Your task to perform on an android device: Set the phone to "Do not disturb". Image 0: 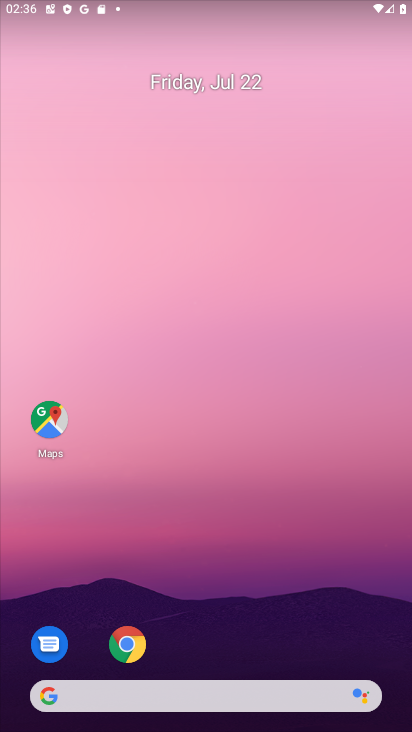
Step 0: drag from (270, 675) to (294, 15)
Your task to perform on an android device: Set the phone to "Do not disturb". Image 1: 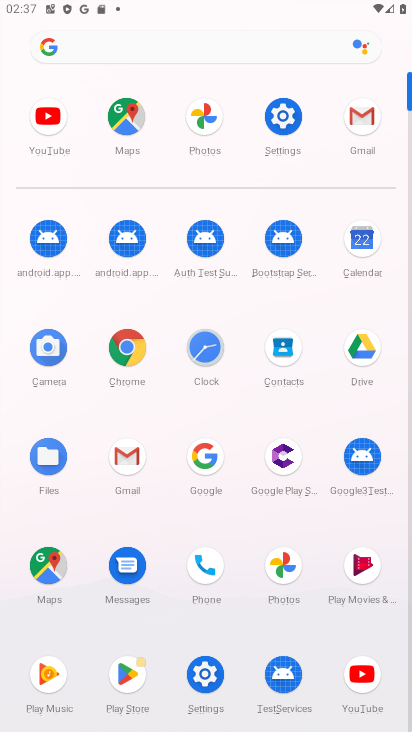
Step 1: click (283, 120)
Your task to perform on an android device: Set the phone to "Do not disturb". Image 2: 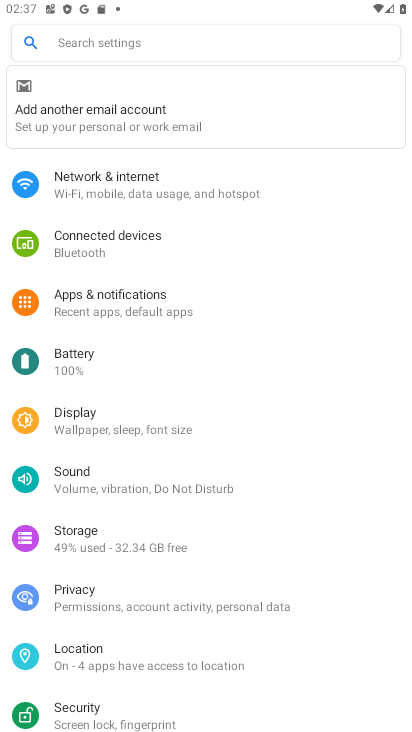
Step 2: click (192, 484)
Your task to perform on an android device: Set the phone to "Do not disturb". Image 3: 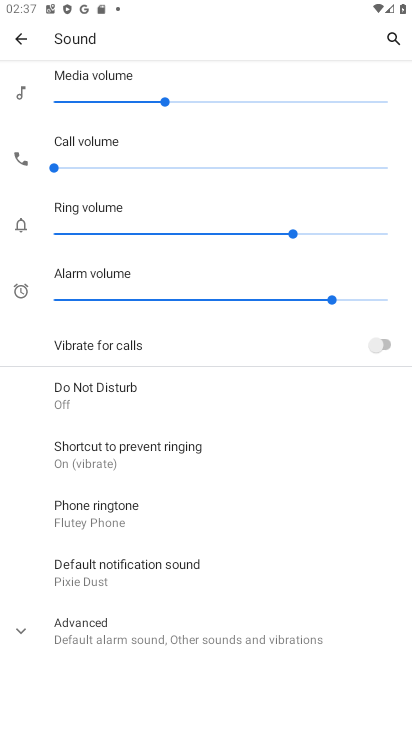
Step 3: click (128, 400)
Your task to perform on an android device: Set the phone to "Do not disturb". Image 4: 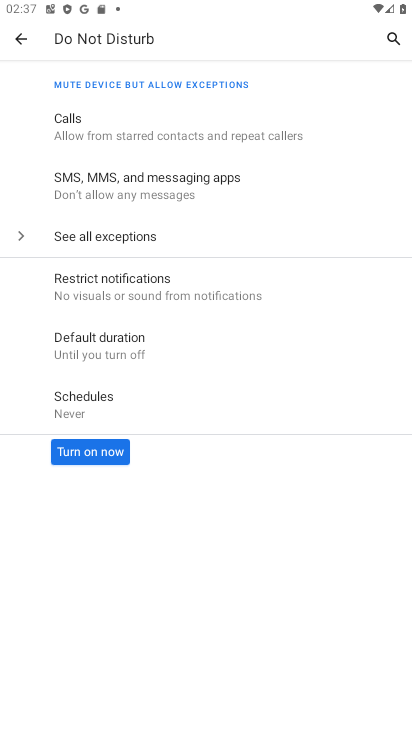
Step 4: click (90, 451)
Your task to perform on an android device: Set the phone to "Do not disturb". Image 5: 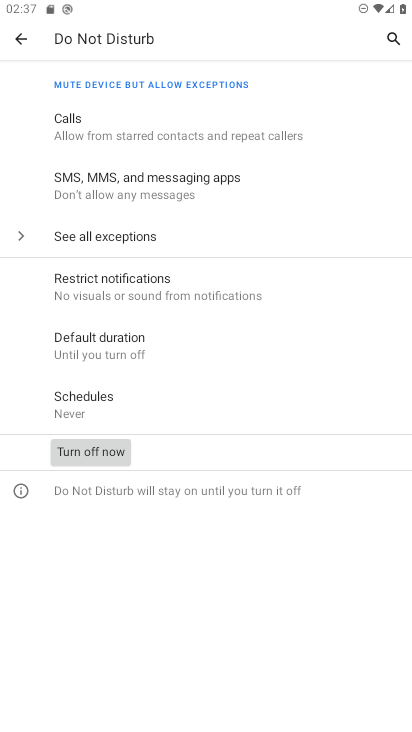
Step 5: task complete